Your task to perform on an android device: turn on location history Image 0: 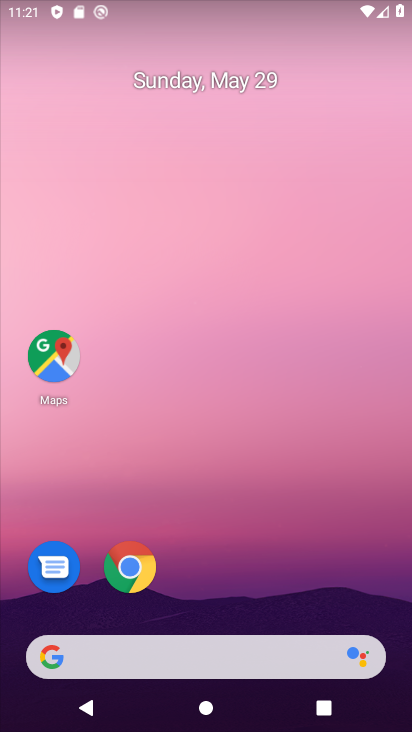
Step 0: drag from (279, 560) to (287, 128)
Your task to perform on an android device: turn on location history Image 1: 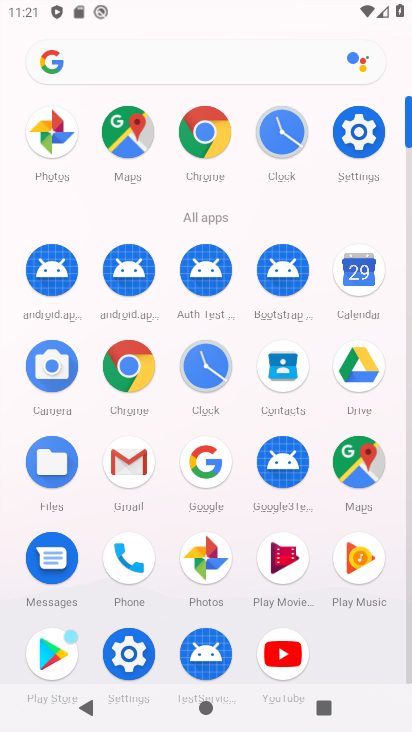
Step 1: click (352, 146)
Your task to perform on an android device: turn on location history Image 2: 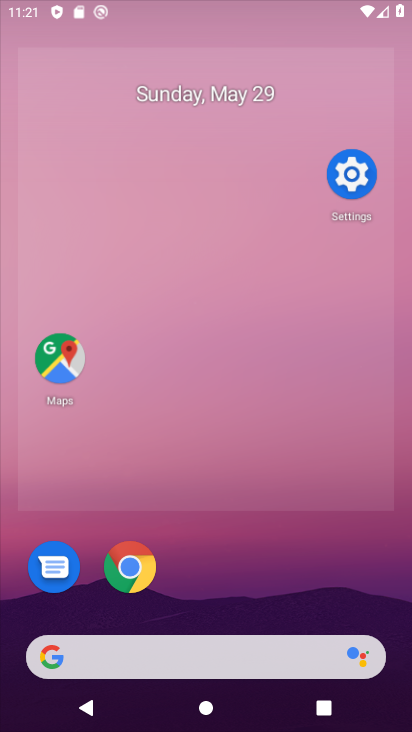
Step 2: click (346, 165)
Your task to perform on an android device: turn on location history Image 3: 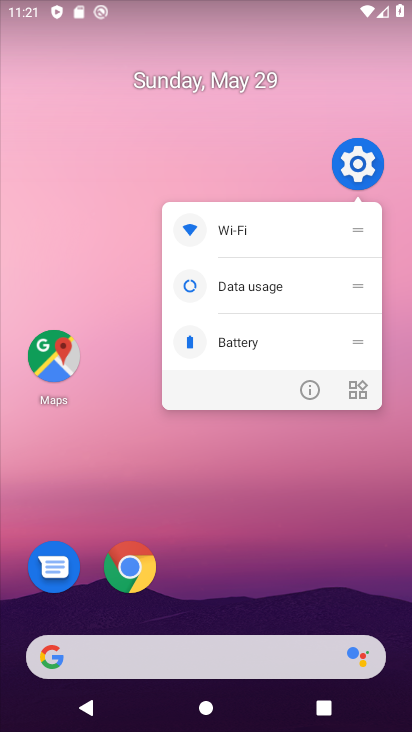
Step 3: click (342, 173)
Your task to perform on an android device: turn on location history Image 4: 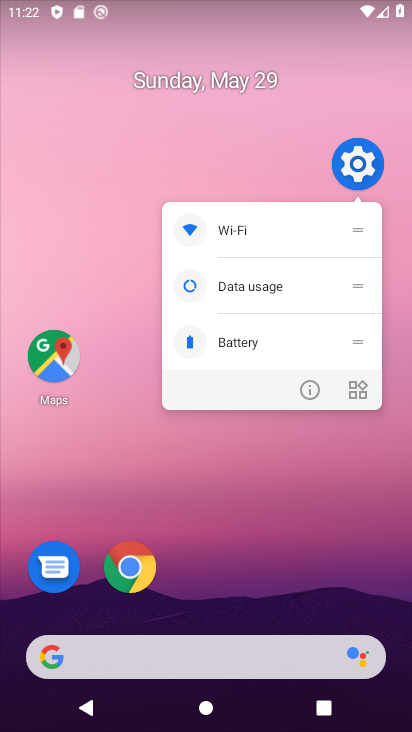
Step 4: click (353, 166)
Your task to perform on an android device: turn on location history Image 5: 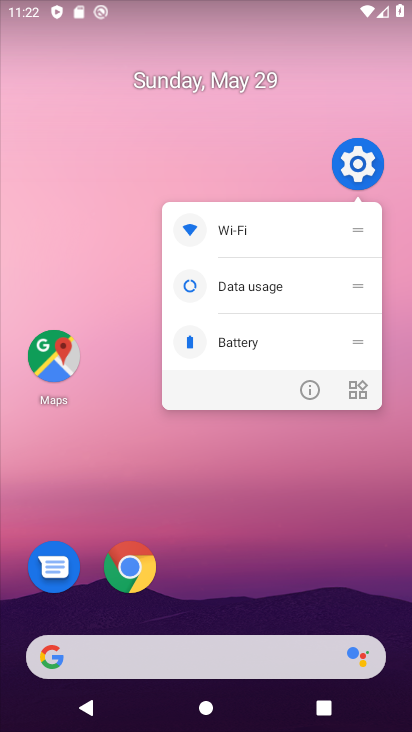
Step 5: click (351, 173)
Your task to perform on an android device: turn on location history Image 6: 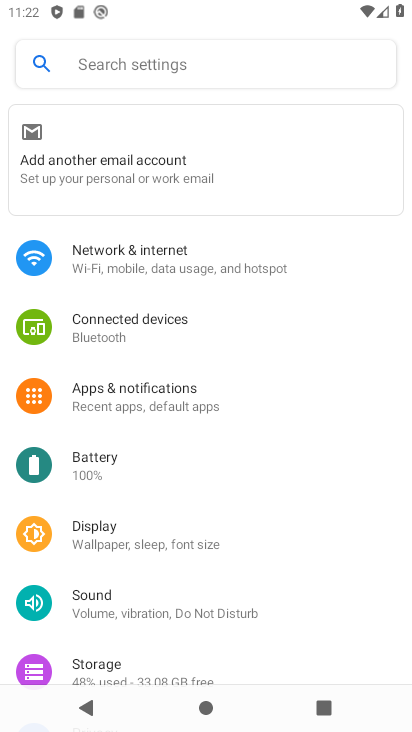
Step 6: drag from (259, 573) to (245, 280)
Your task to perform on an android device: turn on location history Image 7: 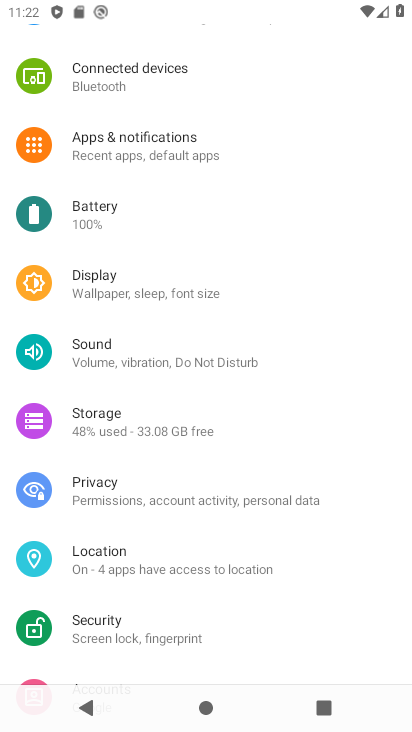
Step 7: click (180, 563)
Your task to perform on an android device: turn on location history Image 8: 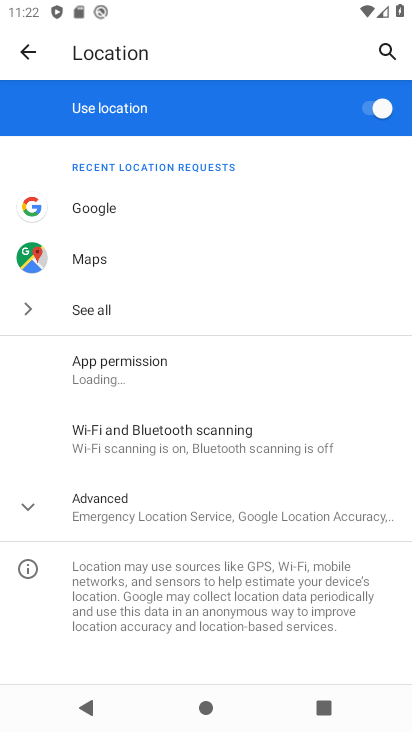
Step 8: click (283, 520)
Your task to perform on an android device: turn on location history Image 9: 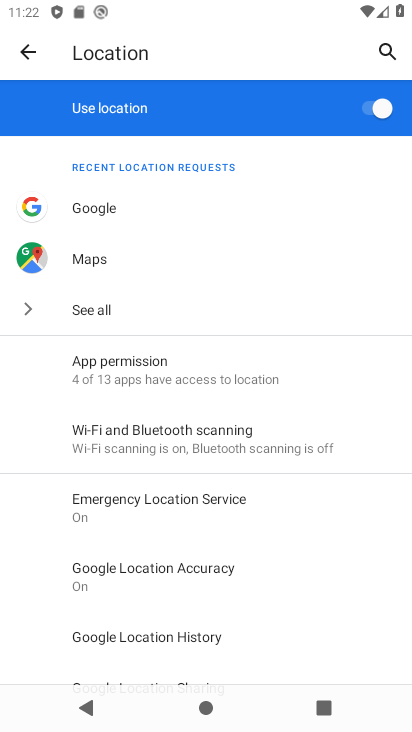
Step 9: drag from (306, 657) to (321, 367)
Your task to perform on an android device: turn on location history Image 10: 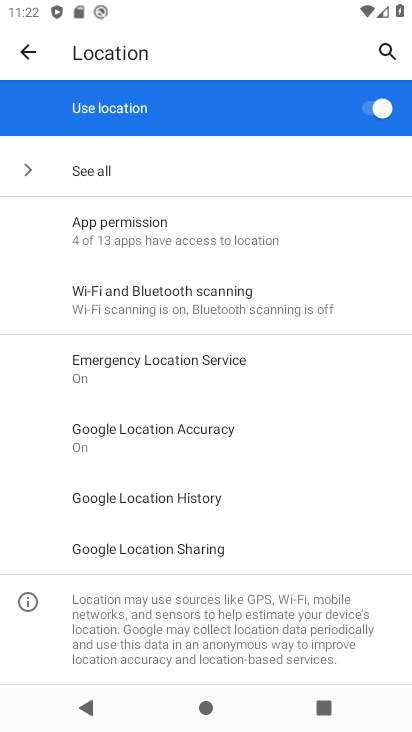
Step 10: click (192, 503)
Your task to perform on an android device: turn on location history Image 11: 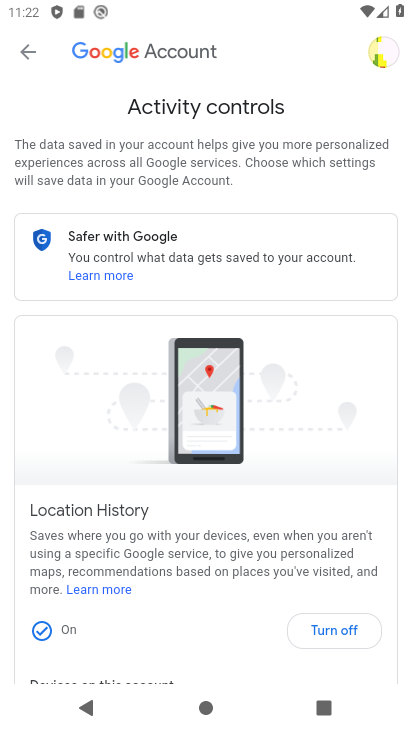
Step 11: task complete